Your task to perform on an android device: Find coffee shops on Maps Image 0: 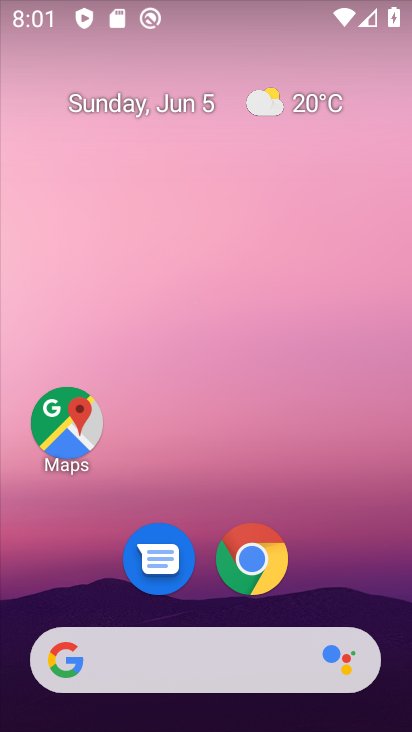
Step 0: click (59, 410)
Your task to perform on an android device: Find coffee shops on Maps Image 1: 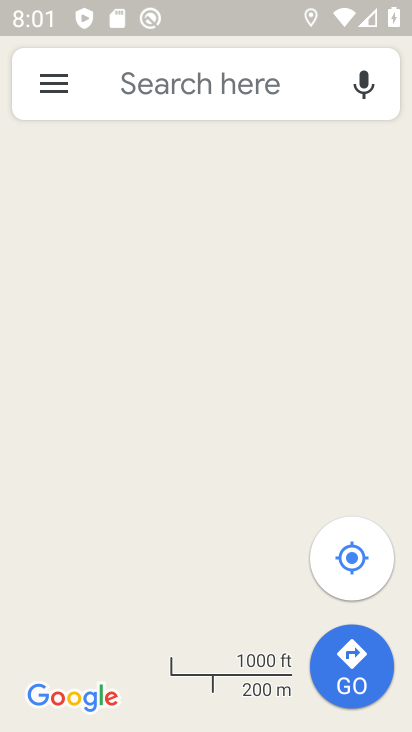
Step 1: click (206, 89)
Your task to perform on an android device: Find coffee shops on Maps Image 2: 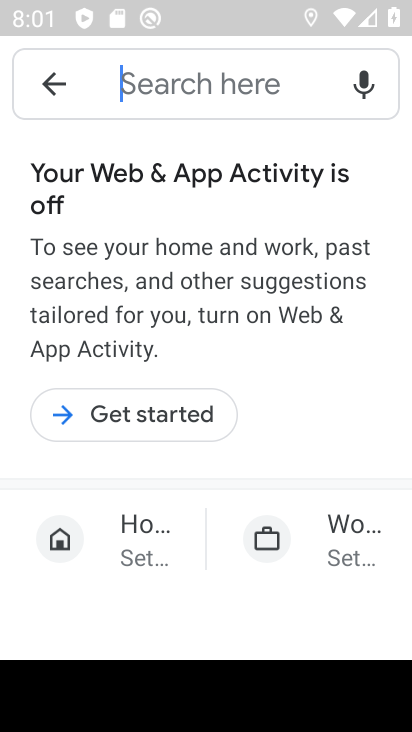
Step 2: click (208, 74)
Your task to perform on an android device: Find coffee shops on Maps Image 3: 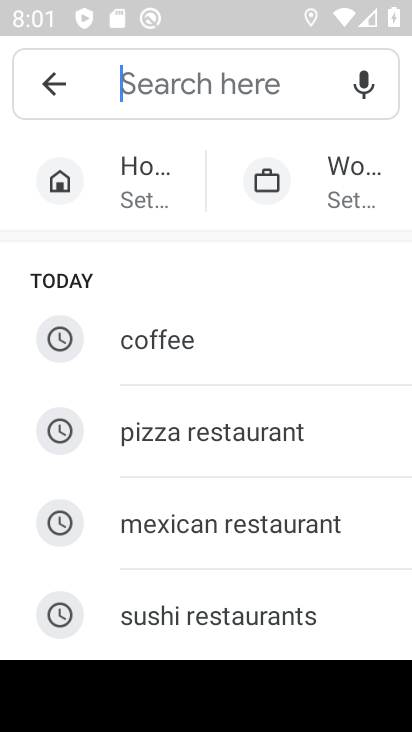
Step 3: click (178, 353)
Your task to perform on an android device: Find coffee shops on Maps Image 4: 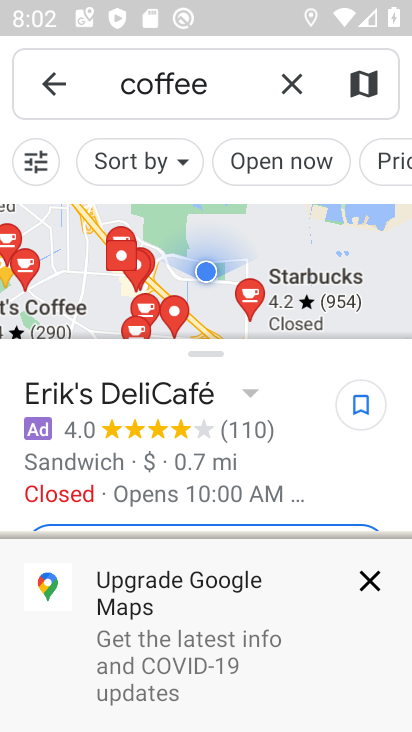
Step 4: task complete